Your task to perform on an android device: Open Youtube and go to the subscriptions tab Image 0: 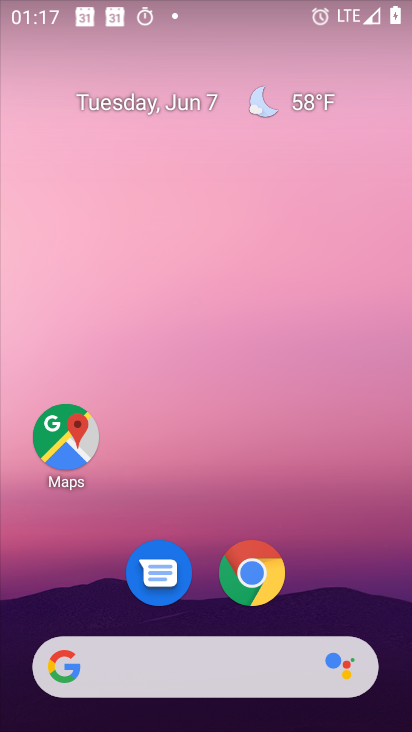
Step 0: drag from (336, 594) to (326, 95)
Your task to perform on an android device: Open Youtube and go to the subscriptions tab Image 1: 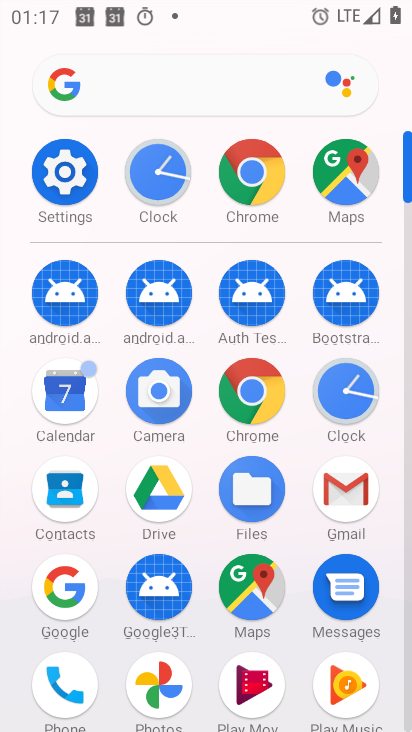
Step 1: drag from (289, 588) to (274, 122)
Your task to perform on an android device: Open Youtube and go to the subscriptions tab Image 2: 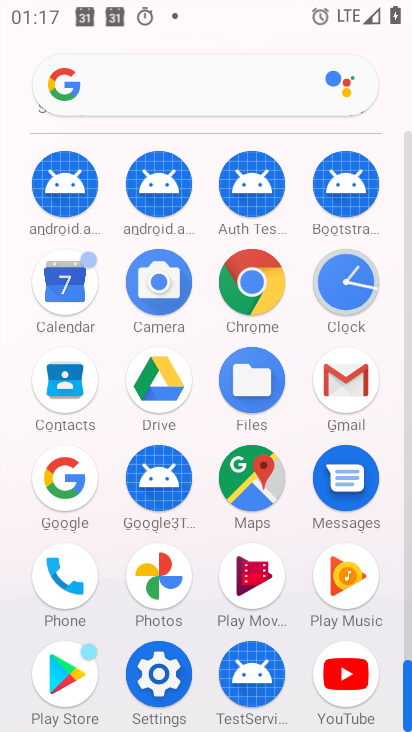
Step 2: click (345, 665)
Your task to perform on an android device: Open Youtube and go to the subscriptions tab Image 3: 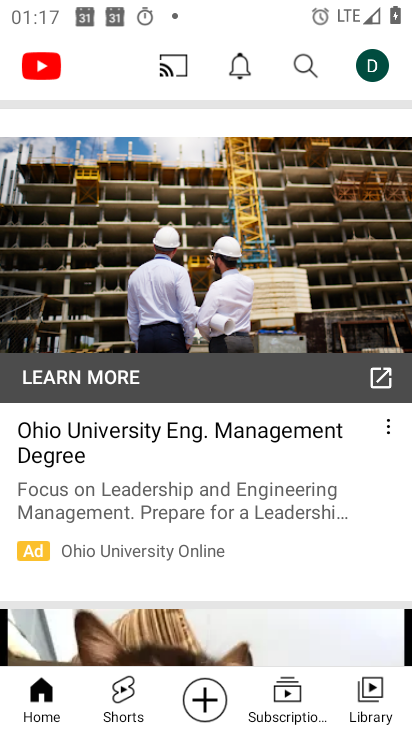
Step 3: click (274, 685)
Your task to perform on an android device: Open Youtube and go to the subscriptions tab Image 4: 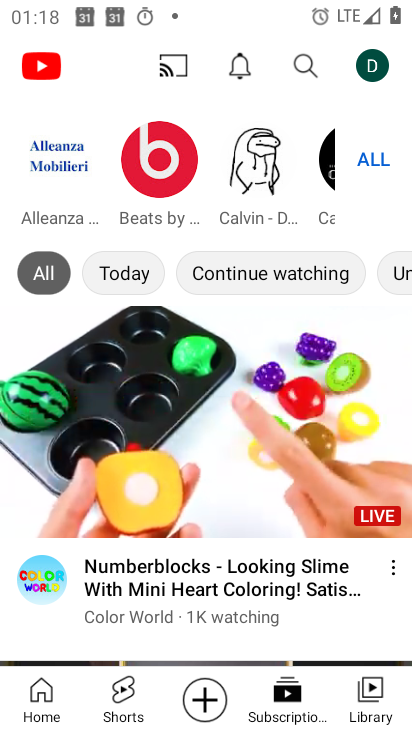
Step 4: task complete